Your task to perform on an android device: turn on the 24-hour format for clock Image 0: 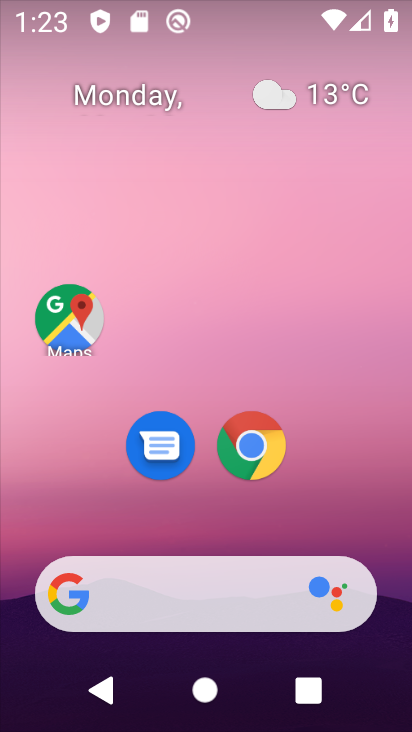
Step 0: drag from (297, 511) to (276, 239)
Your task to perform on an android device: turn on the 24-hour format for clock Image 1: 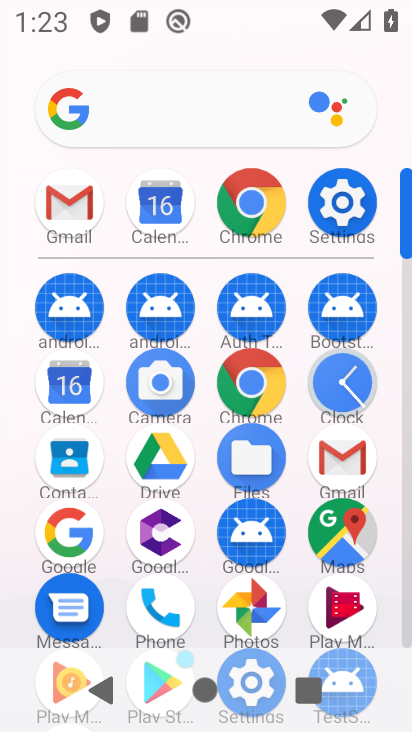
Step 1: click (337, 383)
Your task to perform on an android device: turn on the 24-hour format for clock Image 2: 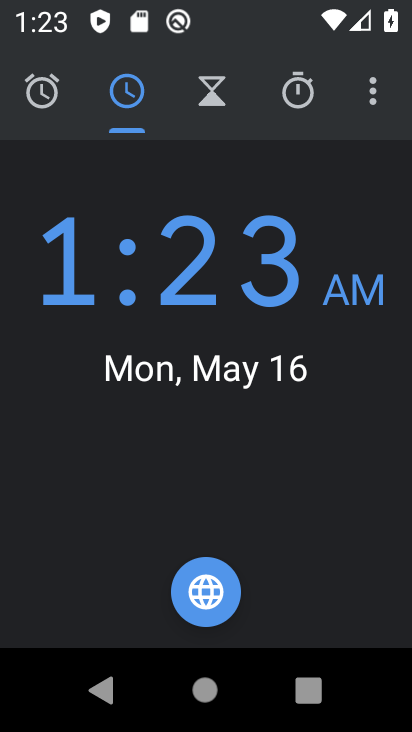
Step 2: click (375, 100)
Your task to perform on an android device: turn on the 24-hour format for clock Image 3: 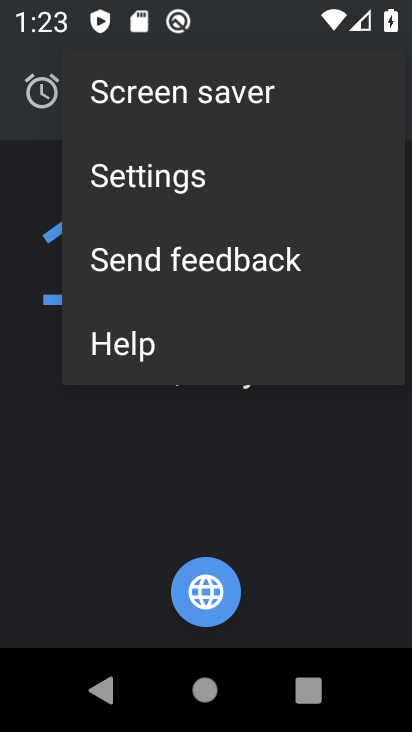
Step 3: click (139, 196)
Your task to perform on an android device: turn on the 24-hour format for clock Image 4: 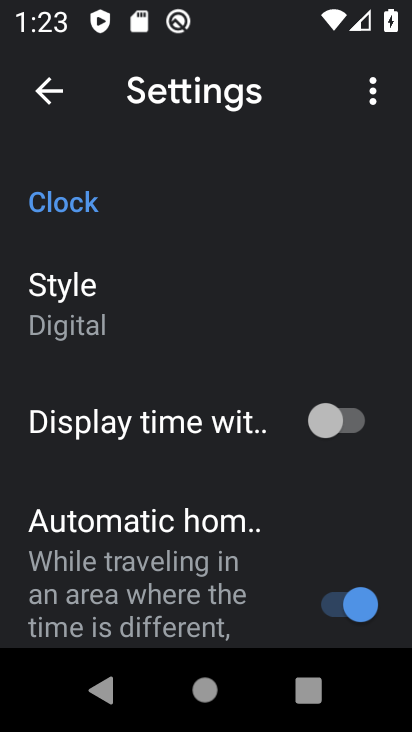
Step 4: drag from (165, 445) to (153, 333)
Your task to perform on an android device: turn on the 24-hour format for clock Image 5: 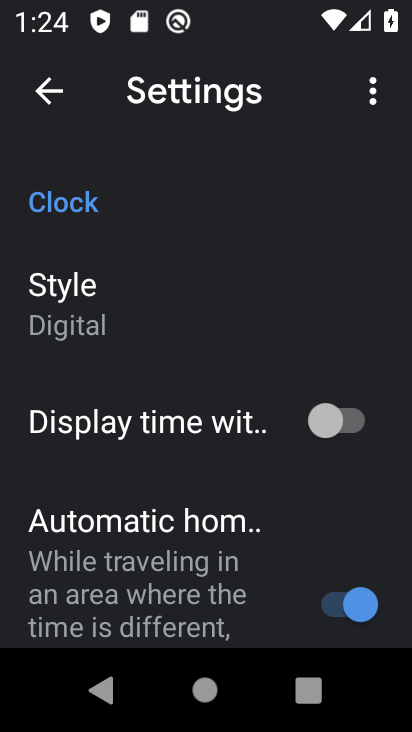
Step 5: drag from (255, 584) to (256, 265)
Your task to perform on an android device: turn on the 24-hour format for clock Image 6: 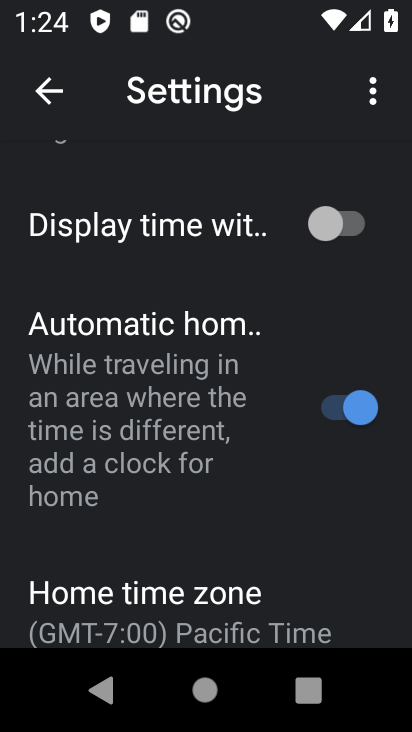
Step 6: drag from (161, 623) to (137, 212)
Your task to perform on an android device: turn on the 24-hour format for clock Image 7: 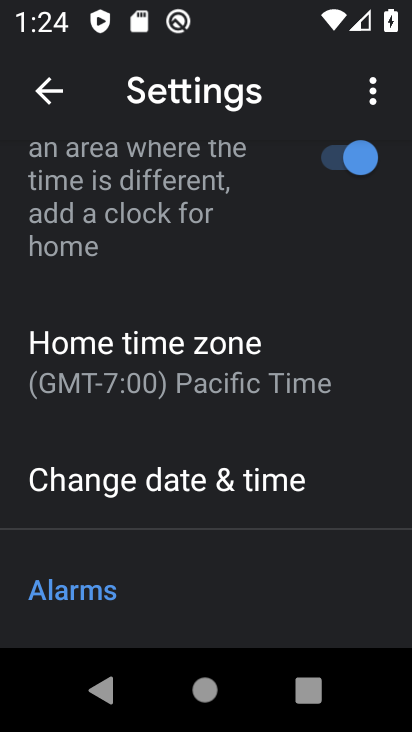
Step 7: click (184, 482)
Your task to perform on an android device: turn on the 24-hour format for clock Image 8: 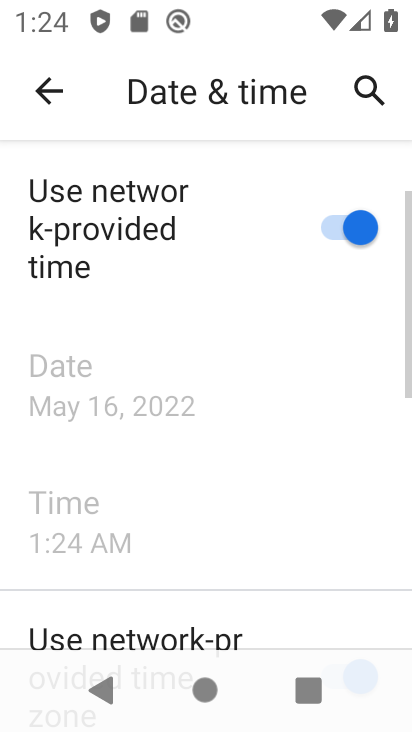
Step 8: drag from (204, 576) to (198, 231)
Your task to perform on an android device: turn on the 24-hour format for clock Image 9: 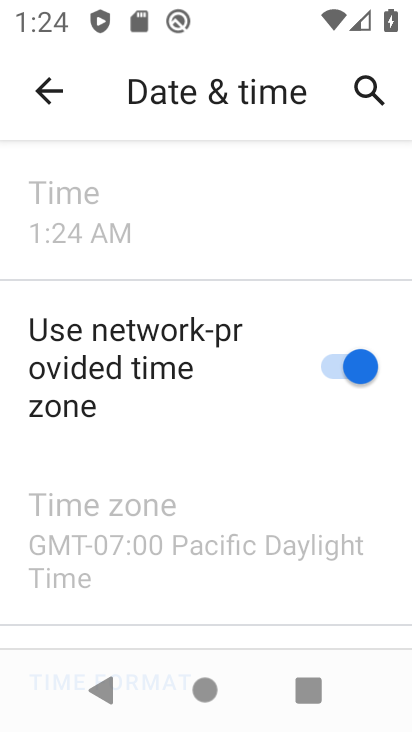
Step 9: drag from (177, 632) to (182, 210)
Your task to perform on an android device: turn on the 24-hour format for clock Image 10: 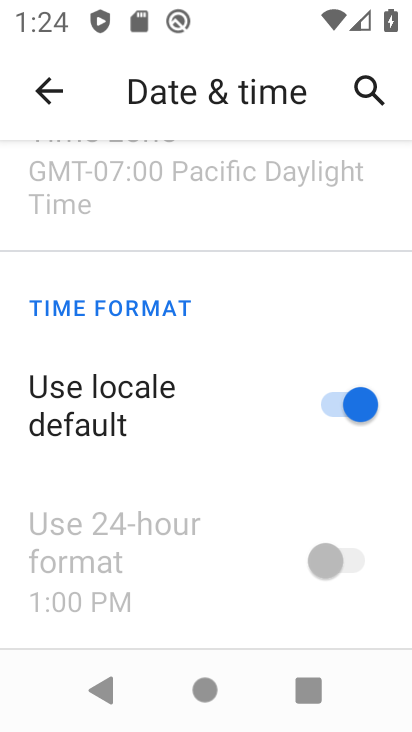
Step 10: click (307, 403)
Your task to perform on an android device: turn on the 24-hour format for clock Image 11: 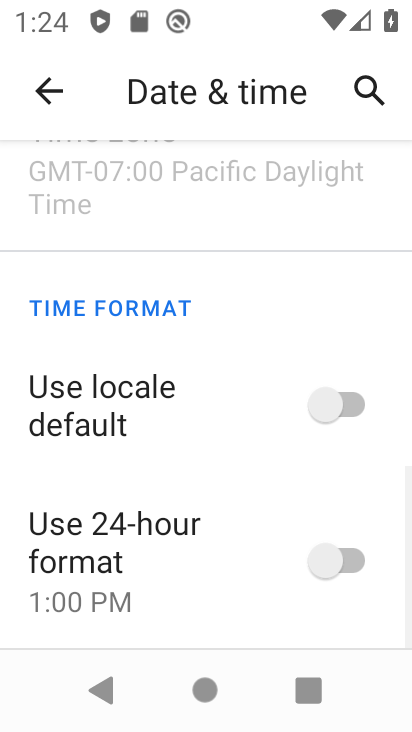
Step 11: click (366, 573)
Your task to perform on an android device: turn on the 24-hour format for clock Image 12: 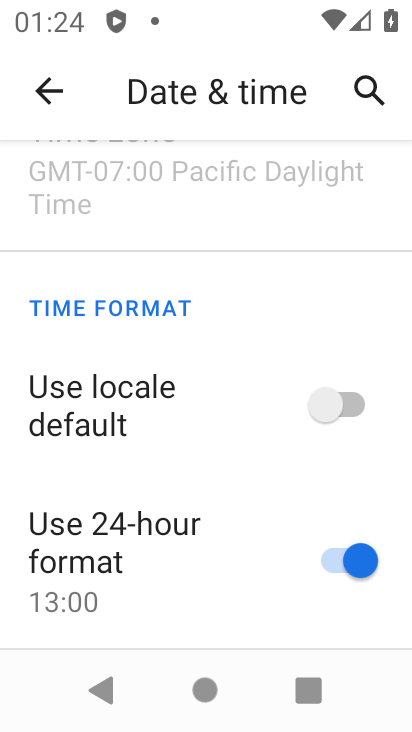
Step 12: task complete